Your task to perform on an android device: Go to sound settings Image 0: 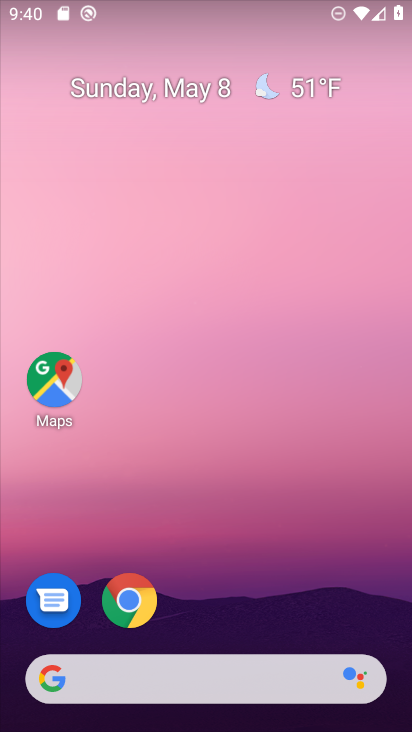
Step 0: drag from (307, 671) to (250, 3)
Your task to perform on an android device: Go to sound settings Image 1: 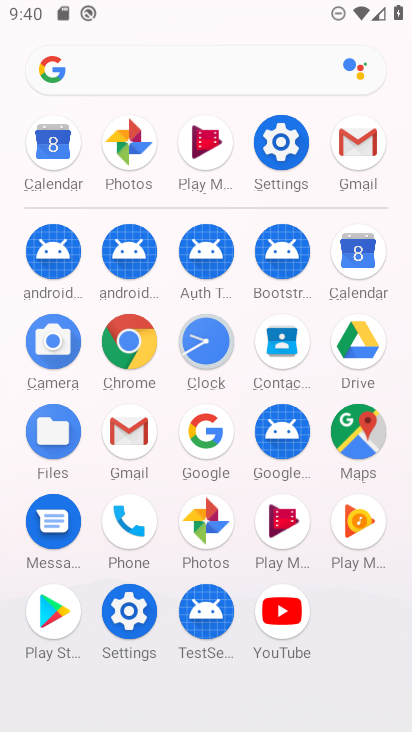
Step 1: click (282, 137)
Your task to perform on an android device: Go to sound settings Image 2: 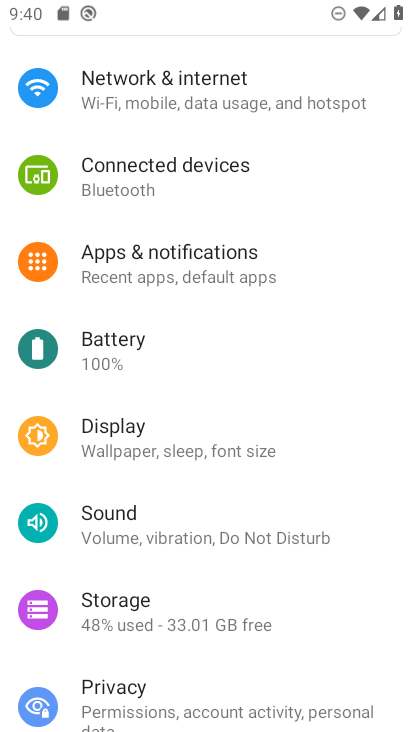
Step 2: click (181, 537)
Your task to perform on an android device: Go to sound settings Image 3: 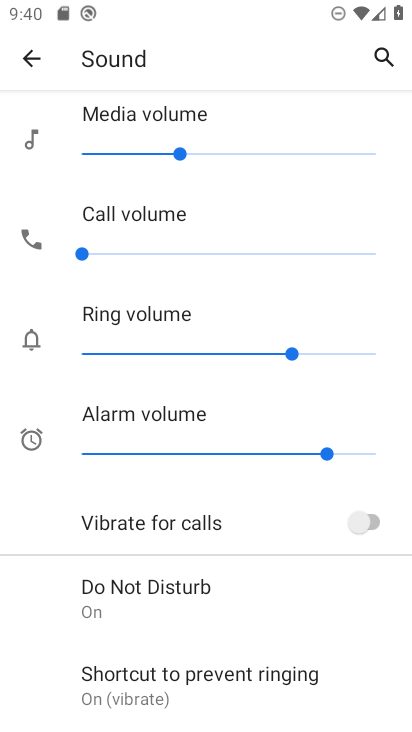
Step 3: task complete